Your task to perform on an android device: Go to internet settings Image 0: 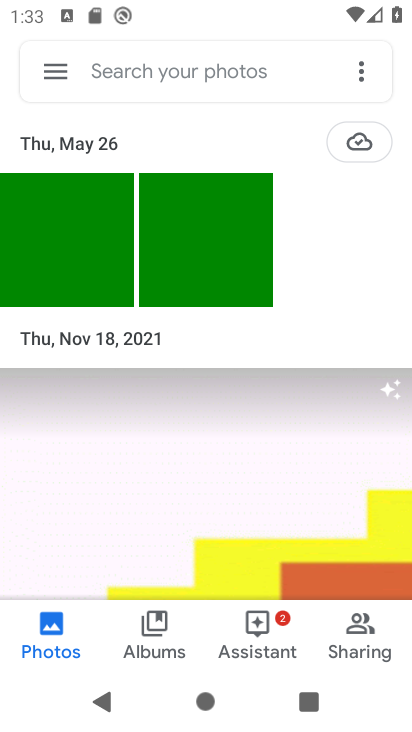
Step 0: press home button
Your task to perform on an android device: Go to internet settings Image 1: 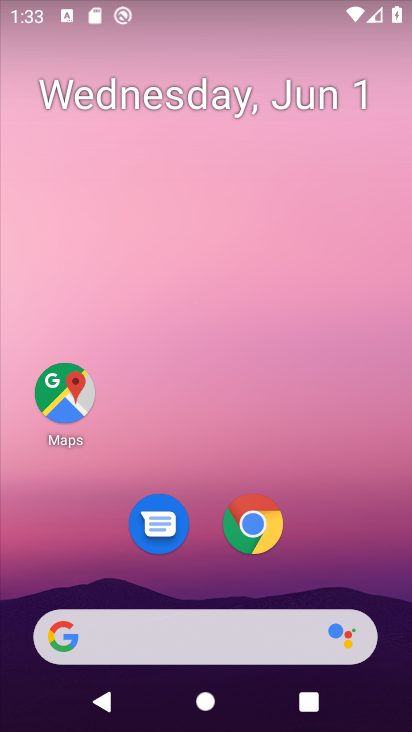
Step 1: drag from (294, 469) to (283, 33)
Your task to perform on an android device: Go to internet settings Image 2: 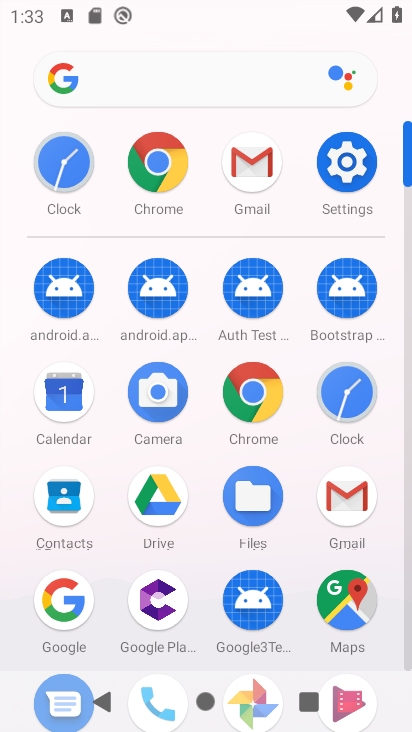
Step 2: click (336, 166)
Your task to perform on an android device: Go to internet settings Image 3: 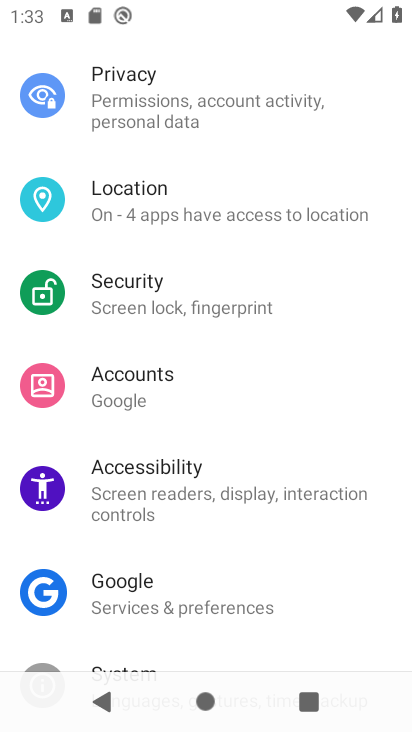
Step 3: drag from (286, 265) to (283, 562)
Your task to perform on an android device: Go to internet settings Image 4: 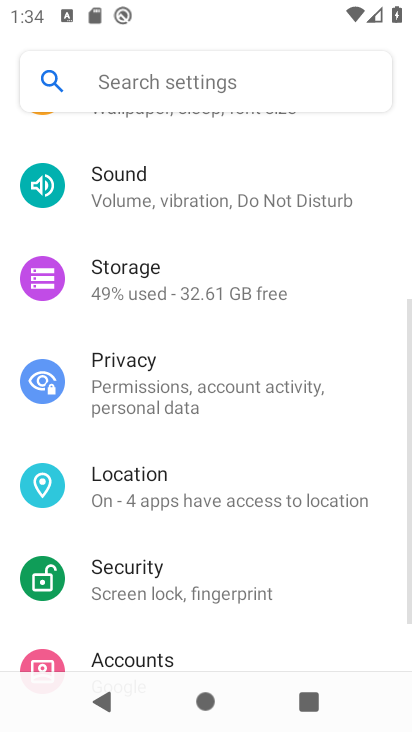
Step 4: drag from (278, 276) to (281, 581)
Your task to perform on an android device: Go to internet settings Image 5: 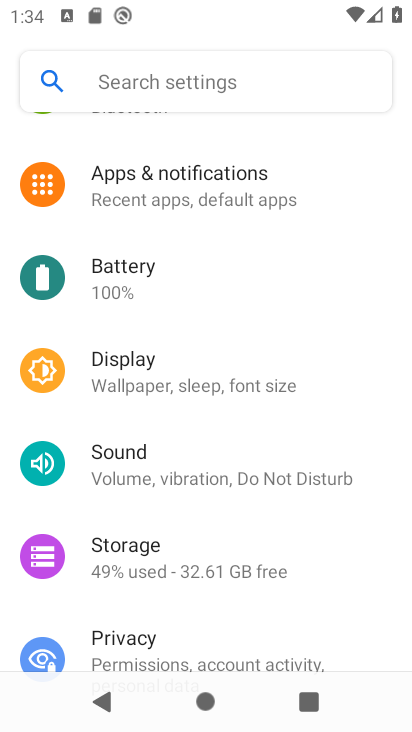
Step 5: drag from (255, 299) to (225, 595)
Your task to perform on an android device: Go to internet settings Image 6: 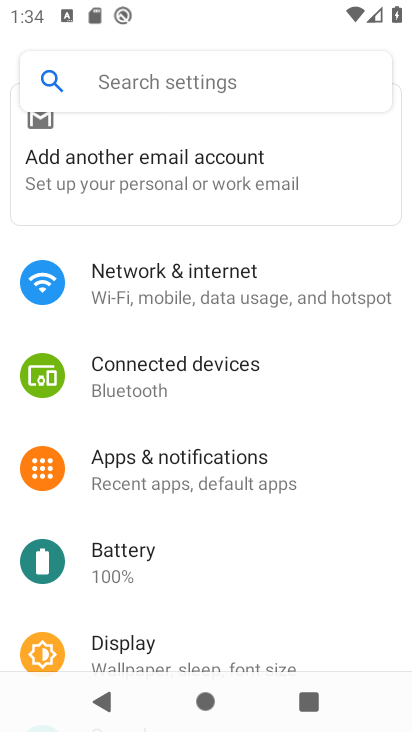
Step 6: click (226, 284)
Your task to perform on an android device: Go to internet settings Image 7: 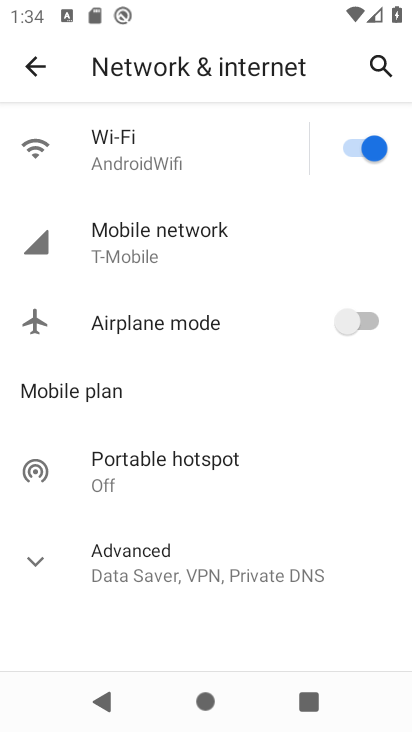
Step 7: task complete